Your task to perform on an android device: open a new tab in the chrome app Image 0: 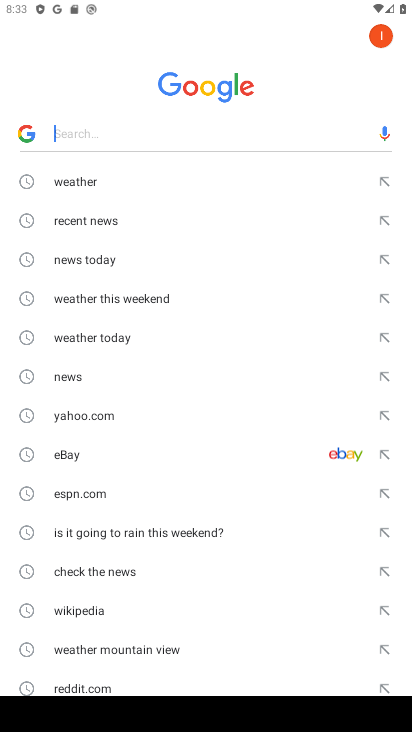
Step 0: click (227, 136)
Your task to perform on an android device: open a new tab in the chrome app Image 1: 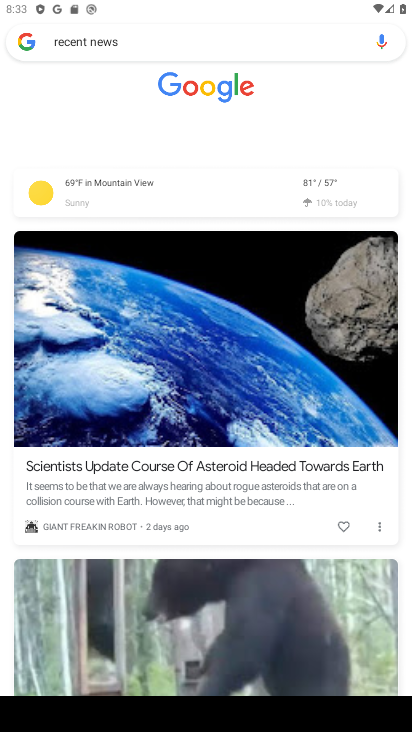
Step 1: press home button
Your task to perform on an android device: open a new tab in the chrome app Image 2: 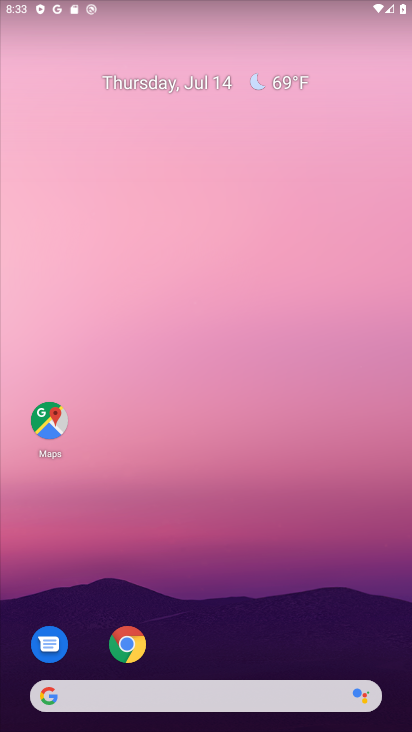
Step 2: click (133, 640)
Your task to perform on an android device: open a new tab in the chrome app Image 3: 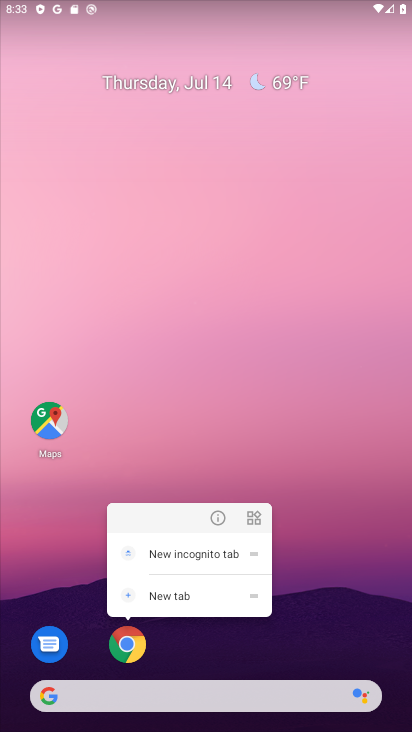
Step 3: click (201, 588)
Your task to perform on an android device: open a new tab in the chrome app Image 4: 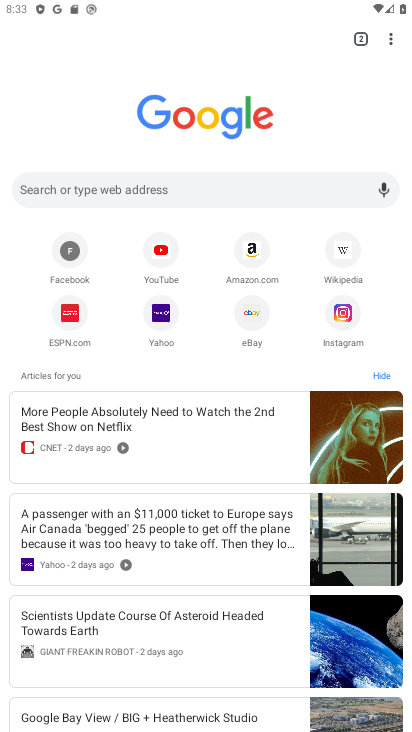
Step 4: click (352, 40)
Your task to perform on an android device: open a new tab in the chrome app Image 5: 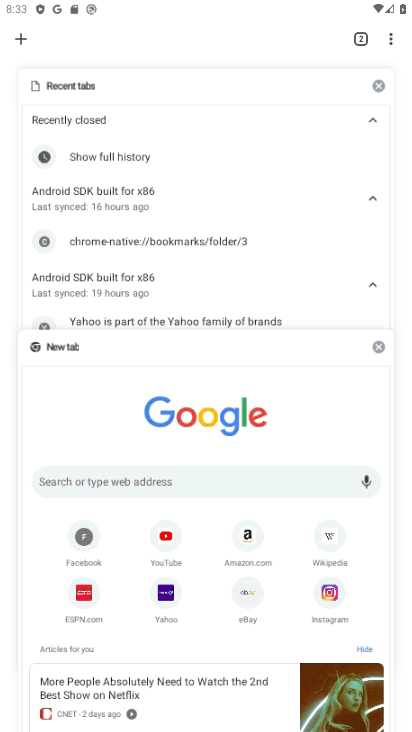
Step 5: click (20, 38)
Your task to perform on an android device: open a new tab in the chrome app Image 6: 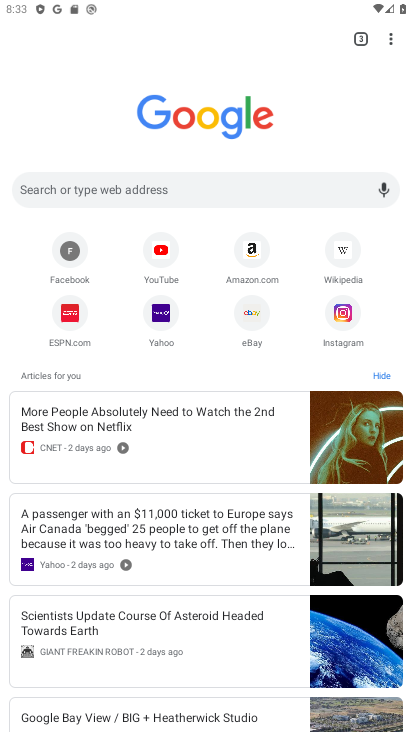
Step 6: task complete